Your task to perform on an android device: open chrome privacy settings Image 0: 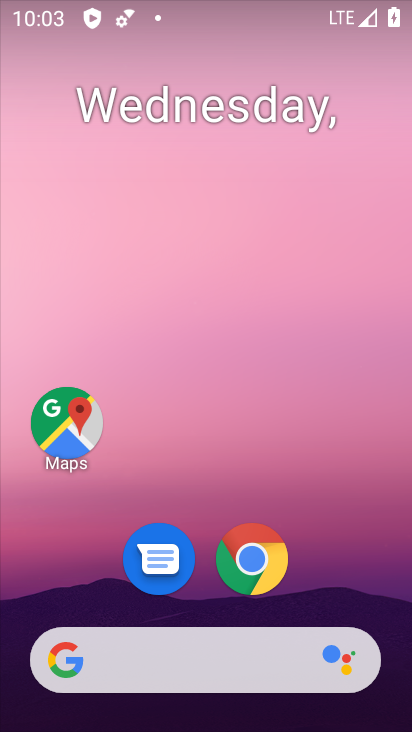
Step 0: drag from (302, 464) to (272, 110)
Your task to perform on an android device: open chrome privacy settings Image 1: 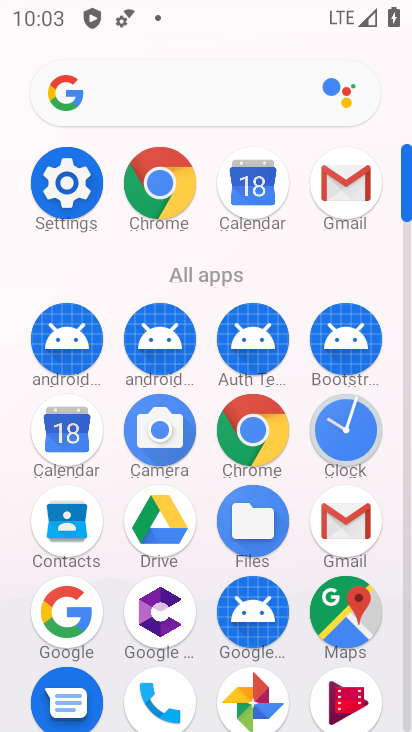
Step 1: click (18, 221)
Your task to perform on an android device: open chrome privacy settings Image 2: 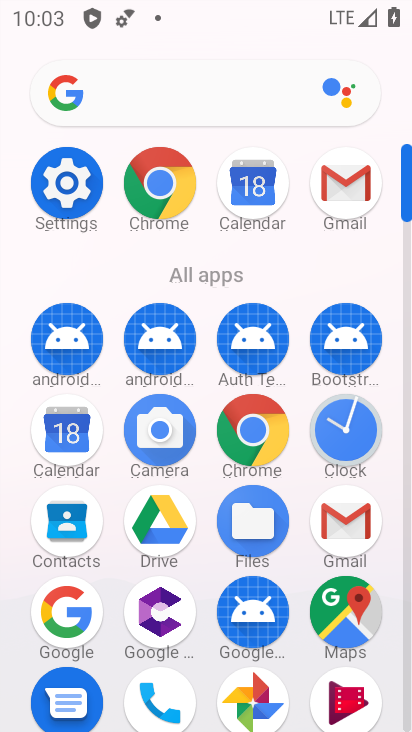
Step 2: click (47, 194)
Your task to perform on an android device: open chrome privacy settings Image 3: 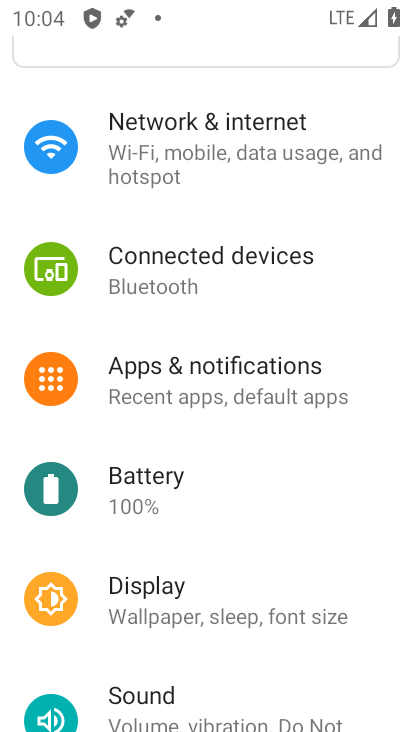
Step 3: drag from (174, 615) to (202, 277)
Your task to perform on an android device: open chrome privacy settings Image 4: 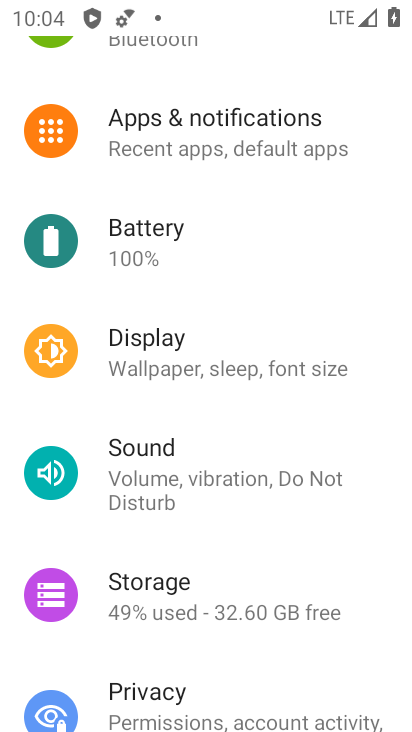
Step 4: drag from (209, 577) to (256, 148)
Your task to perform on an android device: open chrome privacy settings Image 5: 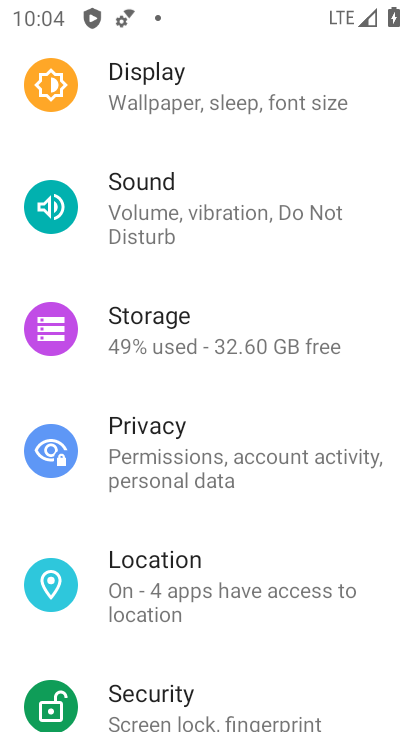
Step 5: click (194, 439)
Your task to perform on an android device: open chrome privacy settings Image 6: 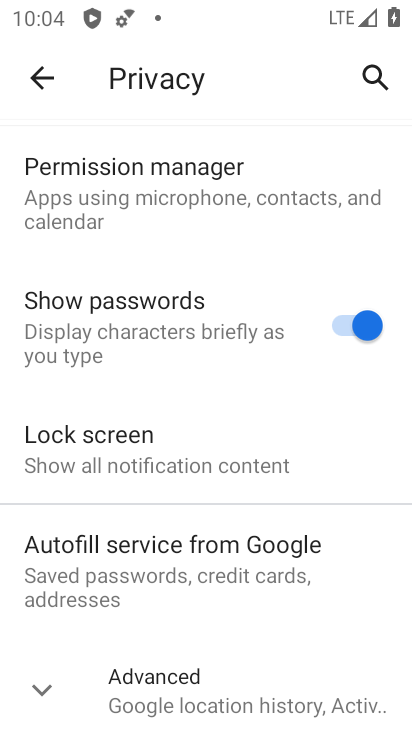
Step 6: task complete